Your task to perform on an android device: turn off airplane mode Image 0: 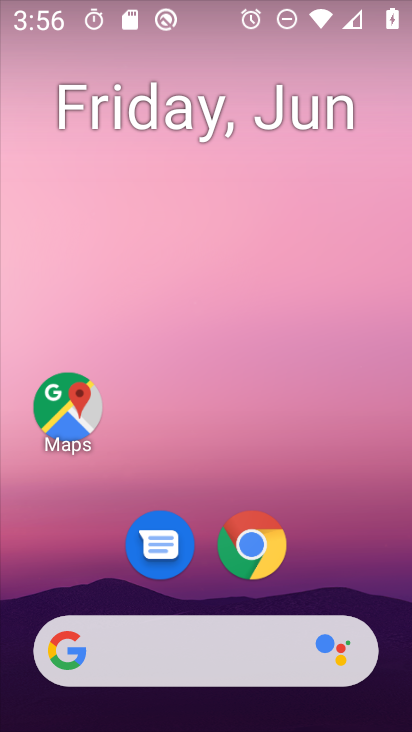
Step 0: drag from (321, 563) to (312, 17)
Your task to perform on an android device: turn off airplane mode Image 1: 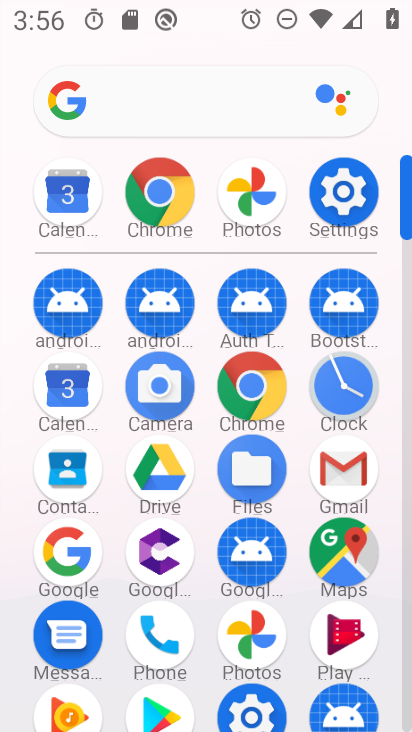
Step 1: click (348, 194)
Your task to perform on an android device: turn off airplane mode Image 2: 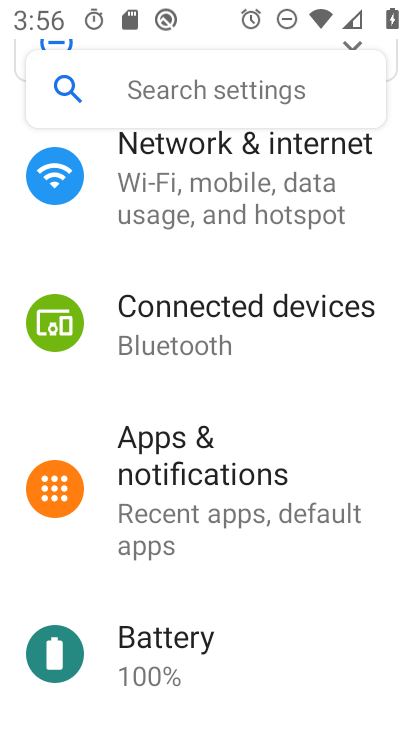
Step 2: click (201, 194)
Your task to perform on an android device: turn off airplane mode Image 3: 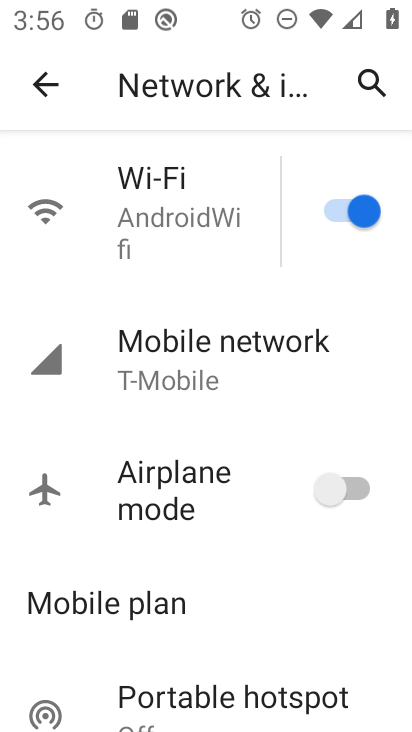
Step 3: task complete